Your task to perform on an android device: toggle notifications settings in the gmail app Image 0: 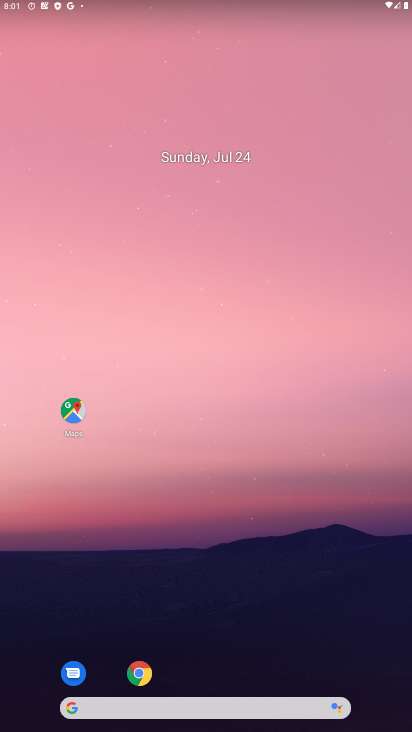
Step 0: drag from (3, 678) to (207, 54)
Your task to perform on an android device: toggle notifications settings in the gmail app Image 1: 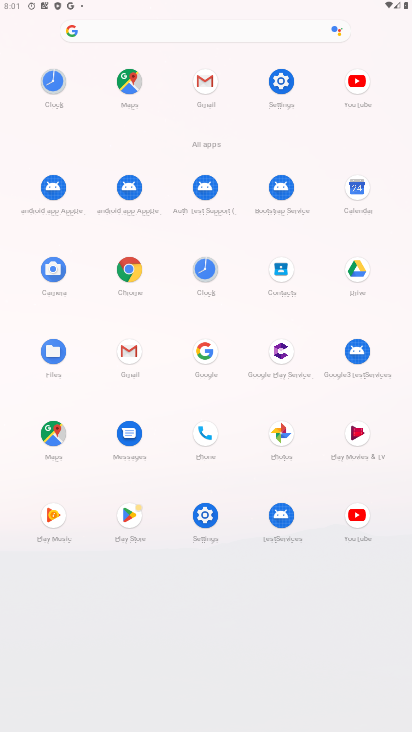
Step 1: click (139, 352)
Your task to perform on an android device: toggle notifications settings in the gmail app Image 2: 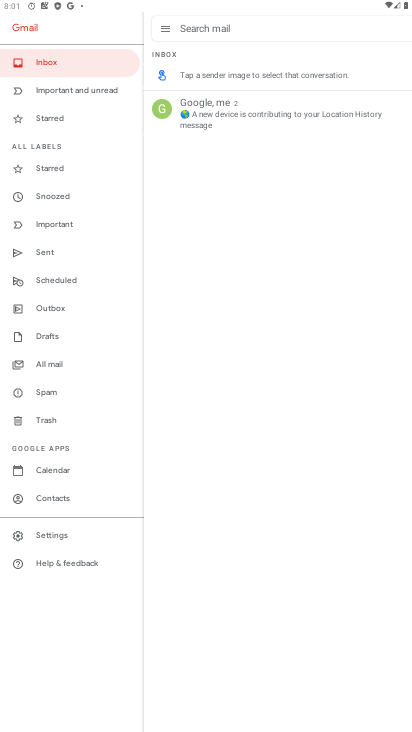
Step 2: click (48, 541)
Your task to perform on an android device: toggle notifications settings in the gmail app Image 3: 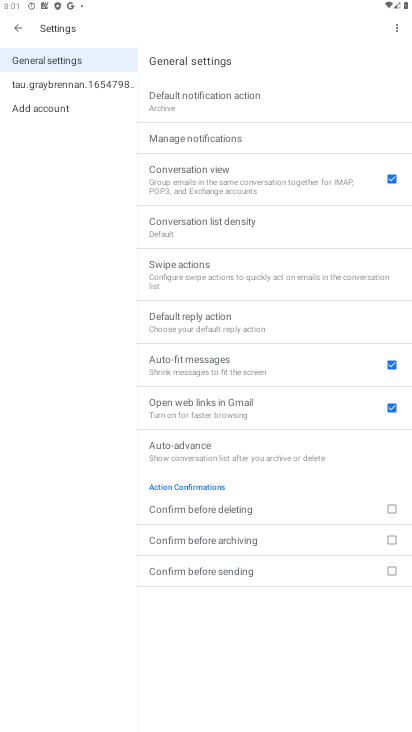
Step 3: click (58, 79)
Your task to perform on an android device: toggle notifications settings in the gmail app Image 4: 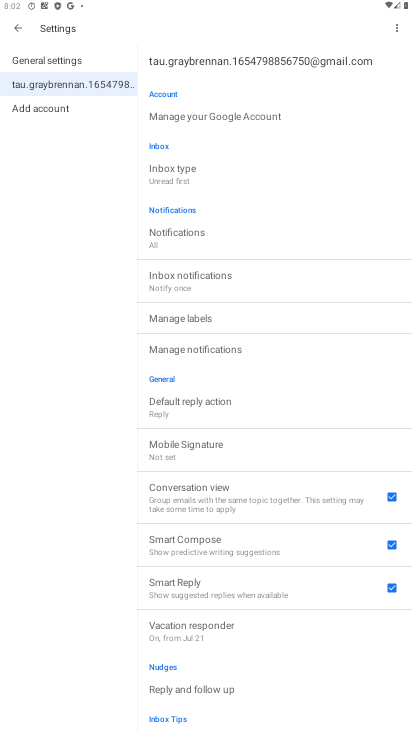
Step 4: click (230, 350)
Your task to perform on an android device: toggle notifications settings in the gmail app Image 5: 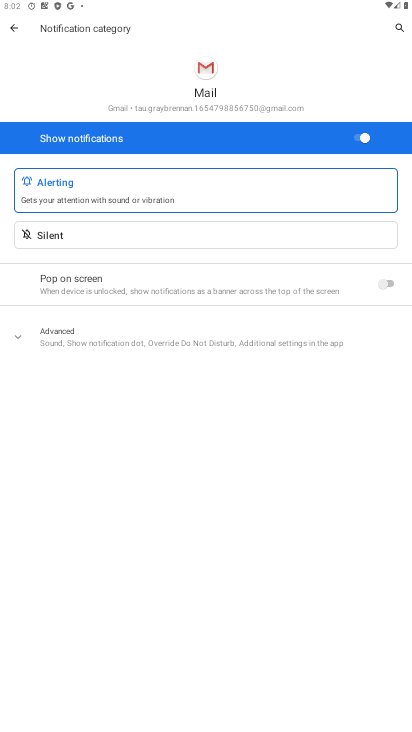
Step 5: task complete